Your task to perform on an android device: toggle notification dots Image 0: 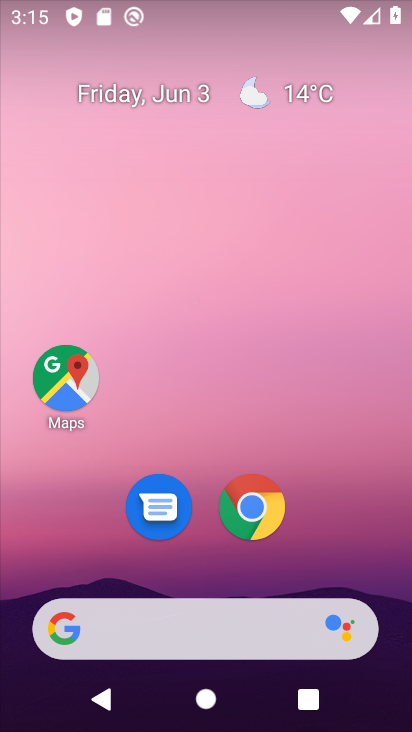
Step 0: press home button
Your task to perform on an android device: toggle notification dots Image 1: 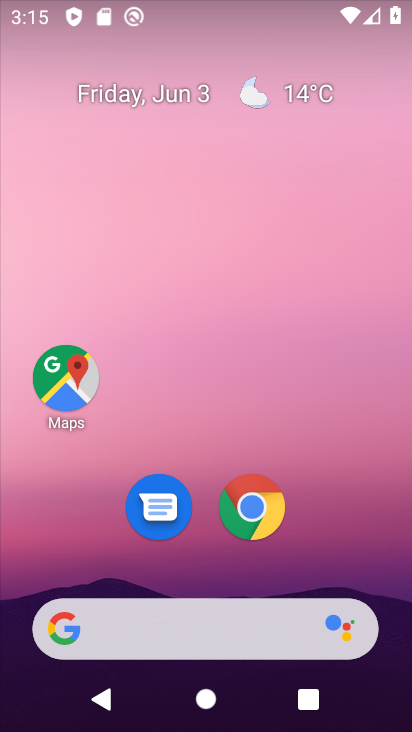
Step 1: drag from (352, 486) to (352, 76)
Your task to perform on an android device: toggle notification dots Image 2: 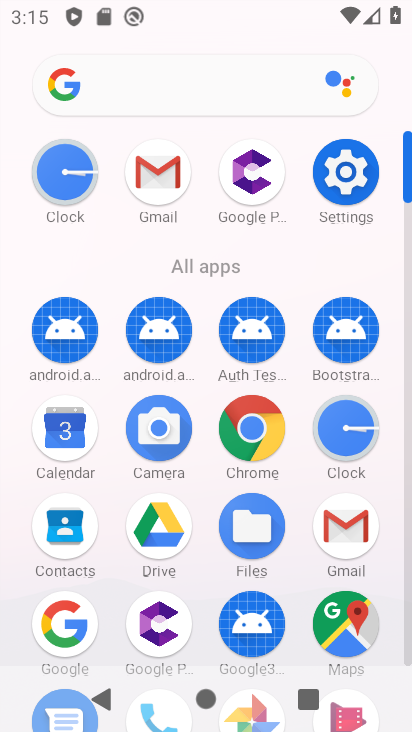
Step 2: click (349, 184)
Your task to perform on an android device: toggle notification dots Image 3: 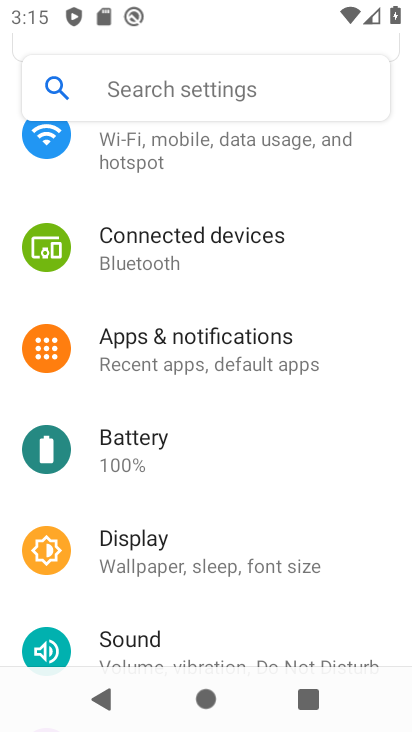
Step 3: drag from (370, 154) to (323, 437)
Your task to perform on an android device: toggle notification dots Image 4: 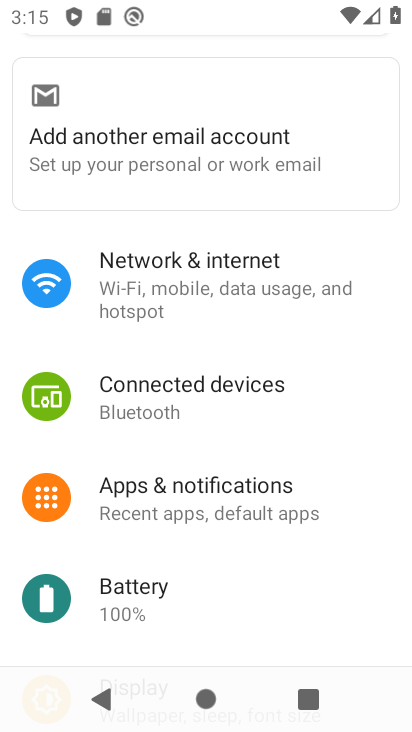
Step 4: click (223, 475)
Your task to perform on an android device: toggle notification dots Image 5: 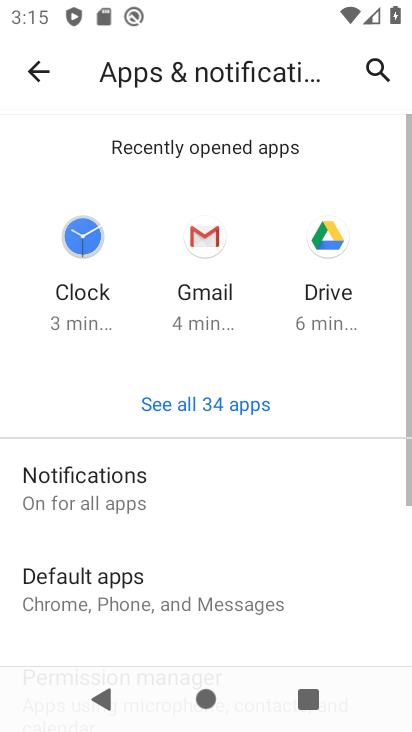
Step 5: drag from (354, 629) to (332, 304)
Your task to perform on an android device: toggle notification dots Image 6: 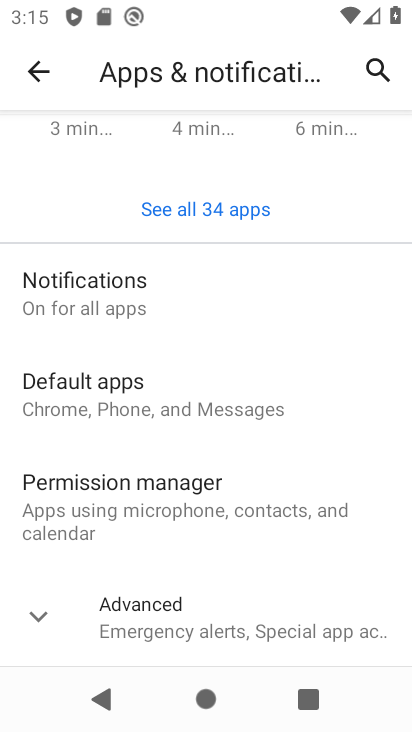
Step 6: click (132, 310)
Your task to perform on an android device: toggle notification dots Image 7: 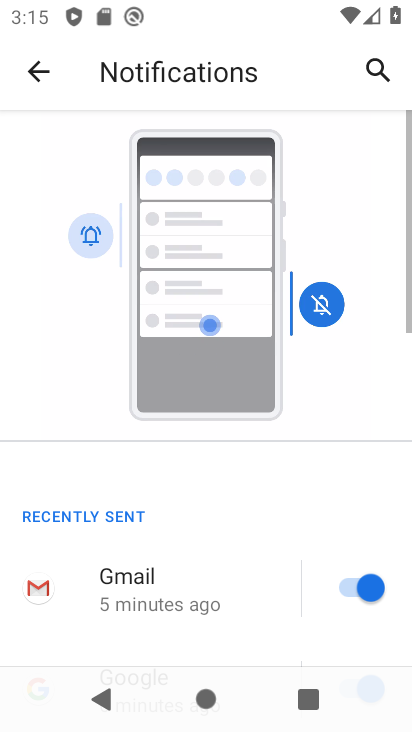
Step 7: drag from (285, 536) to (284, 28)
Your task to perform on an android device: toggle notification dots Image 8: 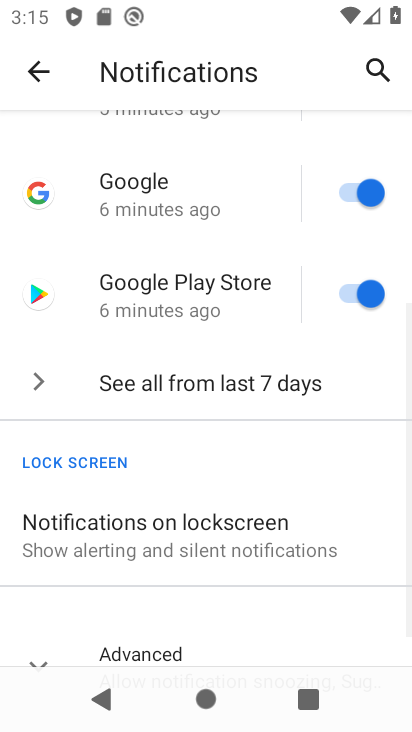
Step 8: drag from (328, 591) to (294, 288)
Your task to perform on an android device: toggle notification dots Image 9: 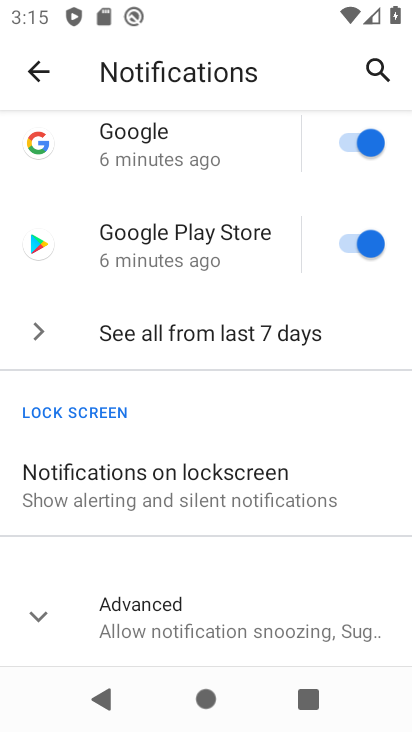
Step 9: click (36, 621)
Your task to perform on an android device: toggle notification dots Image 10: 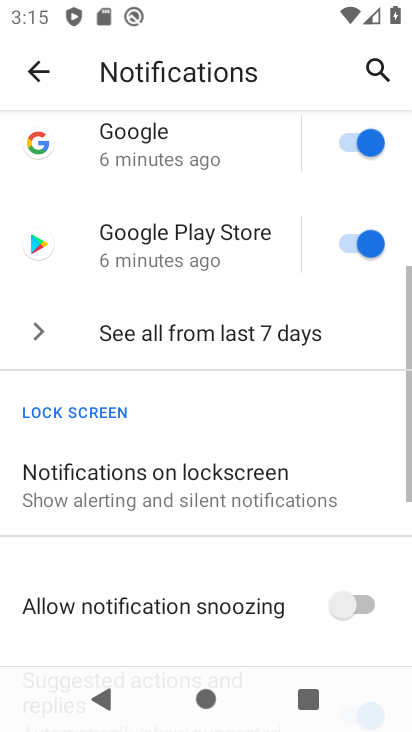
Step 10: drag from (337, 554) to (290, 218)
Your task to perform on an android device: toggle notification dots Image 11: 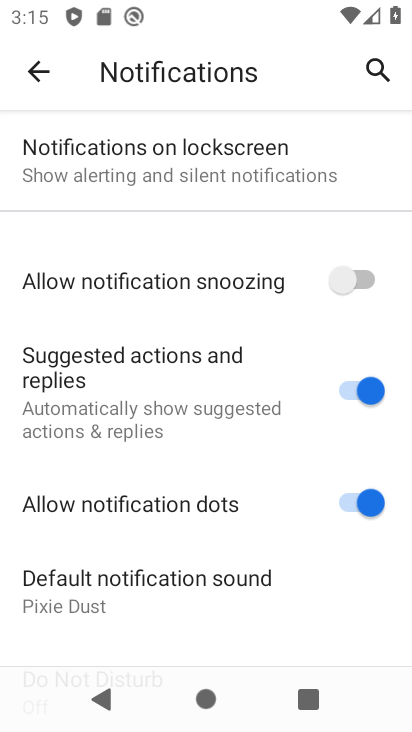
Step 11: click (345, 501)
Your task to perform on an android device: toggle notification dots Image 12: 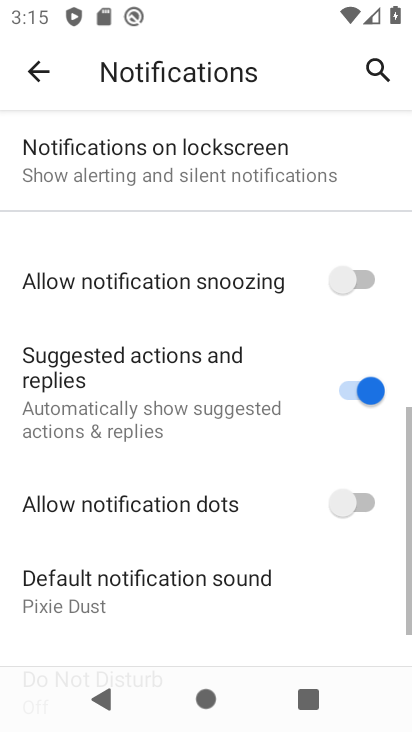
Step 12: task complete